Your task to perform on an android device: change notification settings in the gmail app Image 0: 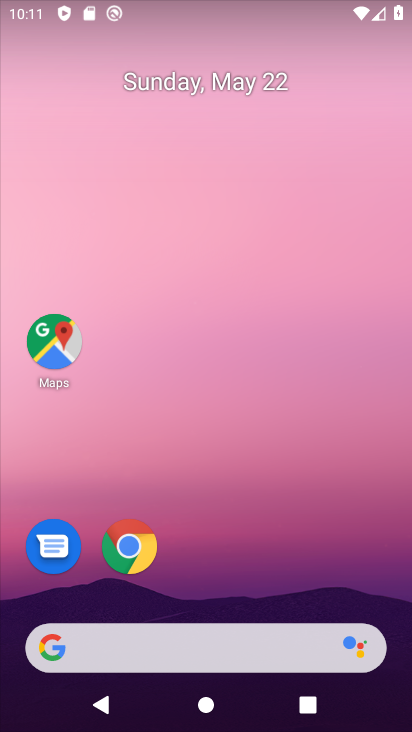
Step 0: drag from (222, 587) to (249, 55)
Your task to perform on an android device: change notification settings in the gmail app Image 1: 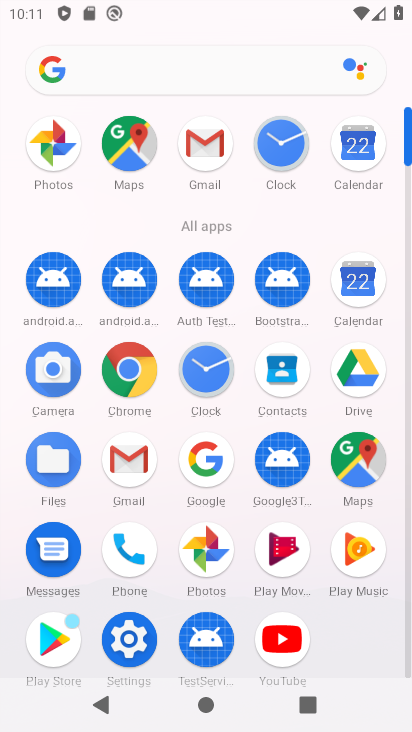
Step 1: click (140, 458)
Your task to perform on an android device: change notification settings in the gmail app Image 2: 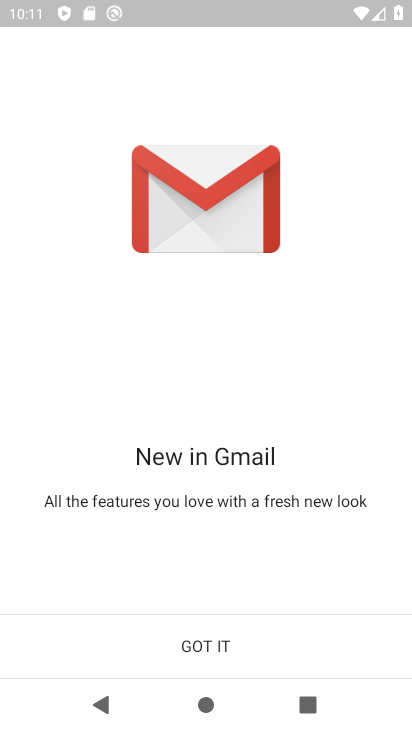
Step 2: click (220, 654)
Your task to perform on an android device: change notification settings in the gmail app Image 3: 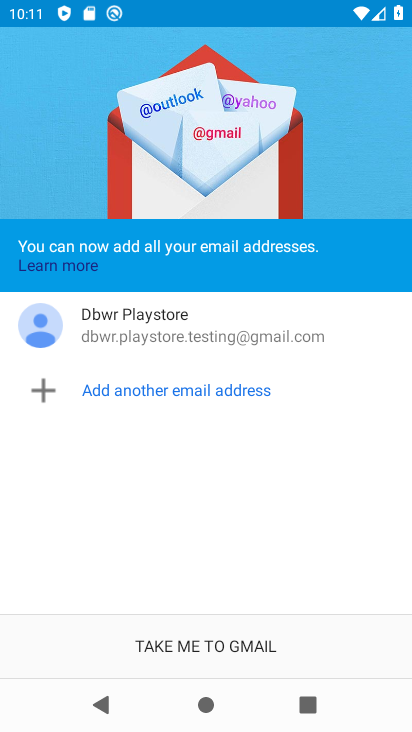
Step 3: click (219, 648)
Your task to perform on an android device: change notification settings in the gmail app Image 4: 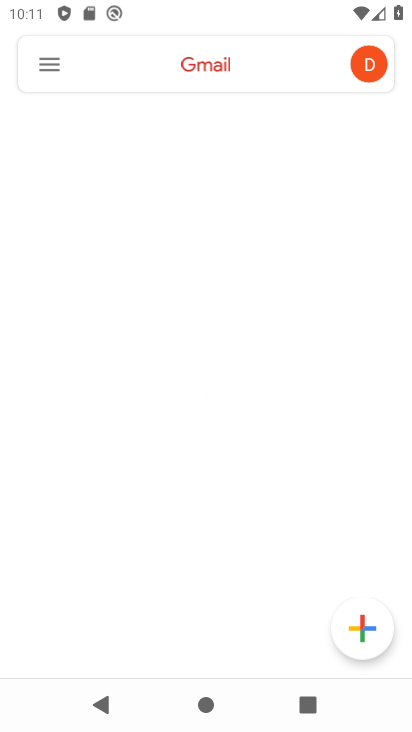
Step 4: click (48, 74)
Your task to perform on an android device: change notification settings in the gmail app Image 5: 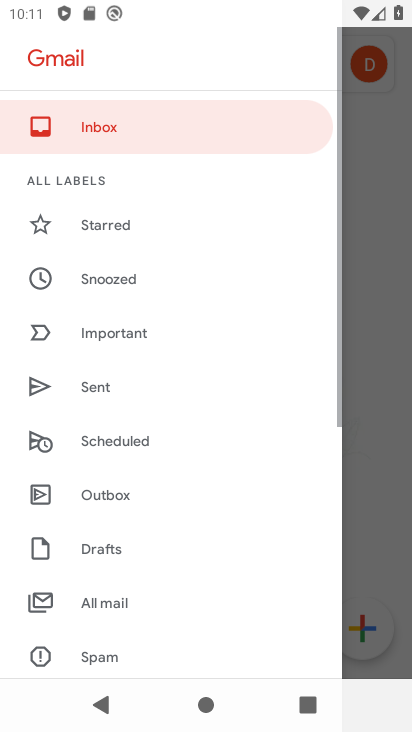
Step 5: drag from (119, 579) to (147, 174)
Your task to perform on an android device: change notification settings in the gmail app Image 6: 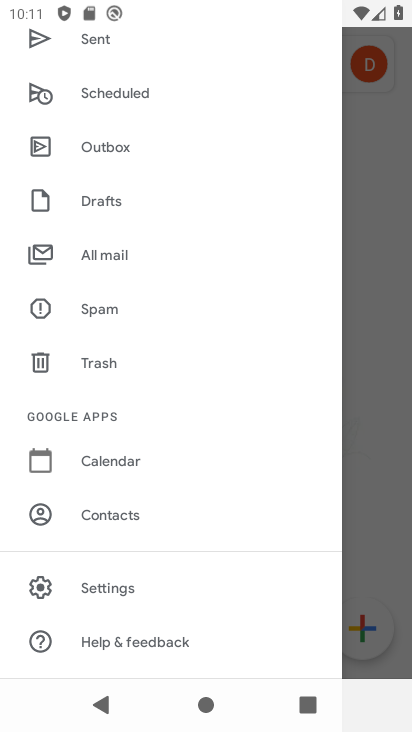
Step 6: click (114, 582)
Your task to perform on an android device: change notification settings in the gmail app Image 7: 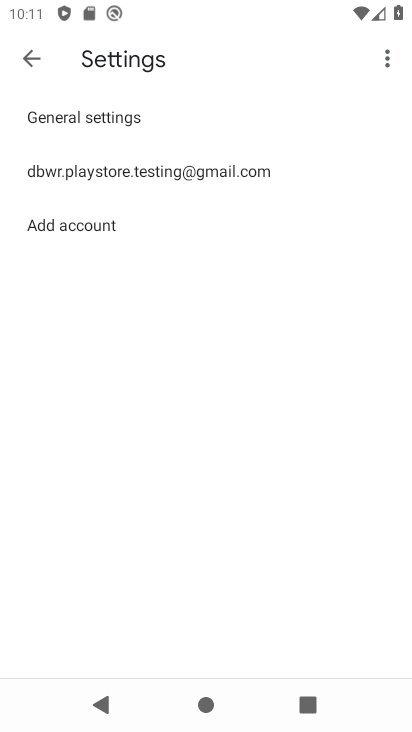
Step 7: click (124, 122)
Your task to perform on an android device: change notification settings in the gmail app Image 8: 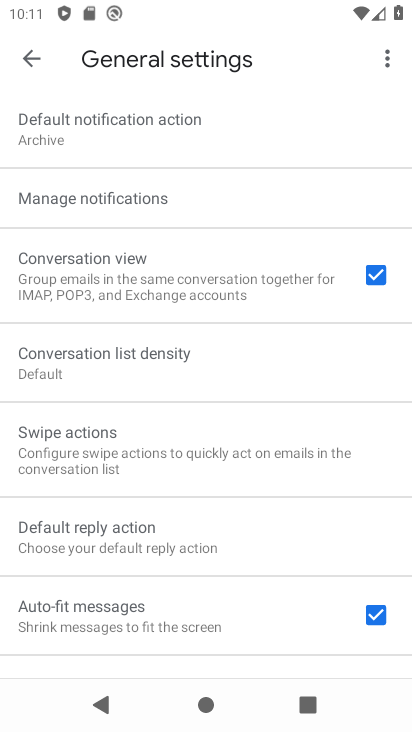
Step 8: click (113, 204)
Your task to perform on an android device: change notification settings in the gmail app Image 9: 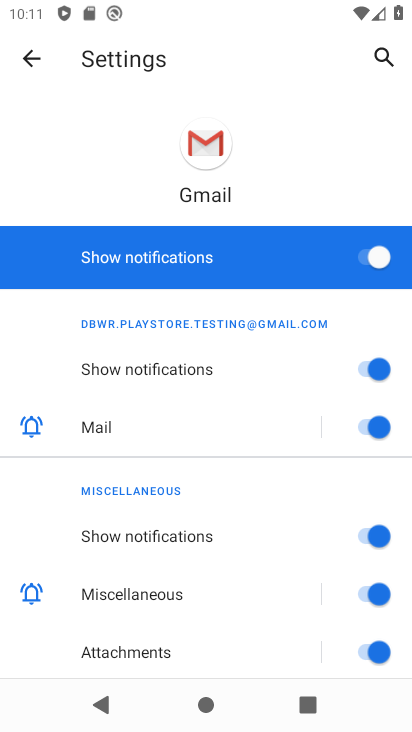
Step 9: click (342, 265)
Your task to perform on an android device: change notification settings in the gmail app Image 10: 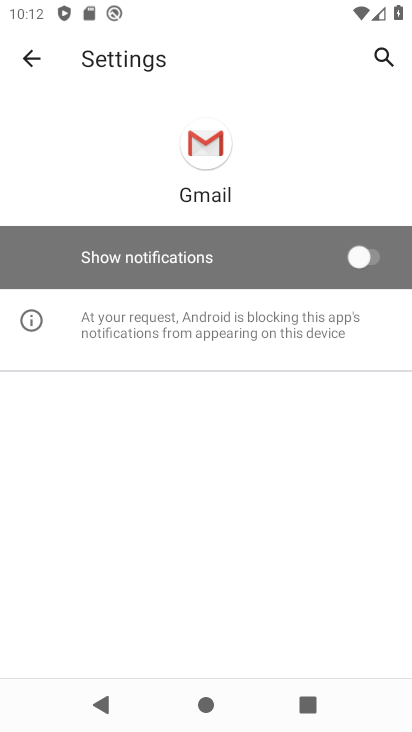
Step 10: task complete